Your task to perform on an android device: turn off translation in the chrome app Image 0: 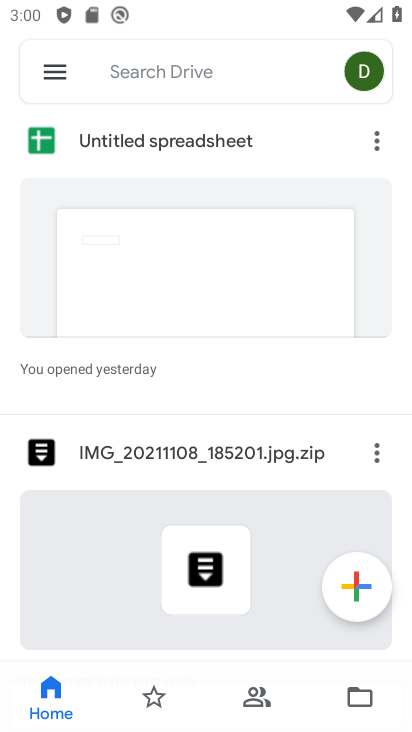
Step 0: press home button
Your task to perform on an android device: turn off translation in the chrome app Image 1: 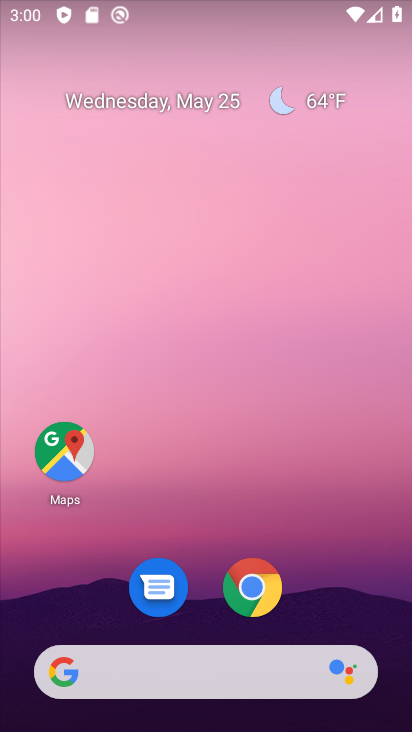
Step 1: click (260, 596)
Your task to perform on an android device: turn off translation in the chrome app Image 2: 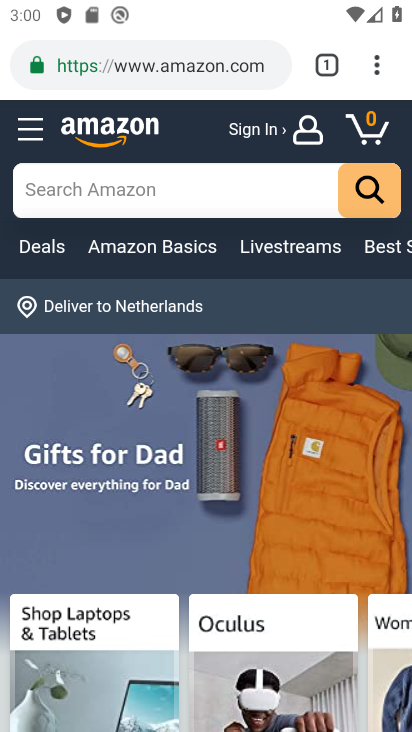
Step 2: click (383, 68)
Your task to perform on an android device: turn off translation in the chrome app Image 3: 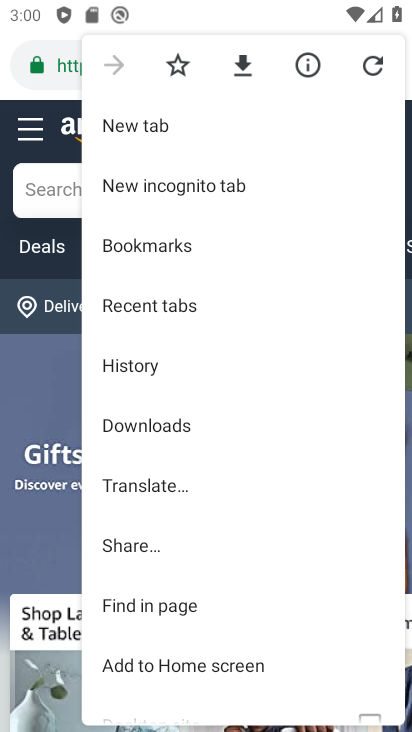
Step 3: drag from (176, 699) to (163, 170)
Your task to perform on an android device: turn off translation in the chrome app Image 4: 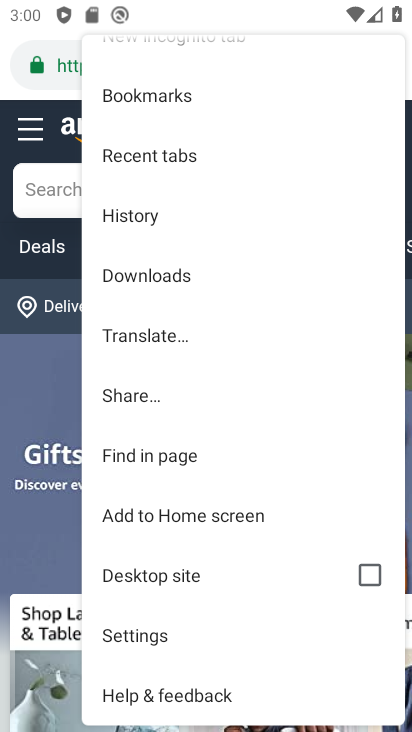
Step 4: click (137, 638)
Your task to perform on an android device: turn off translation in the chrome app Image 5: 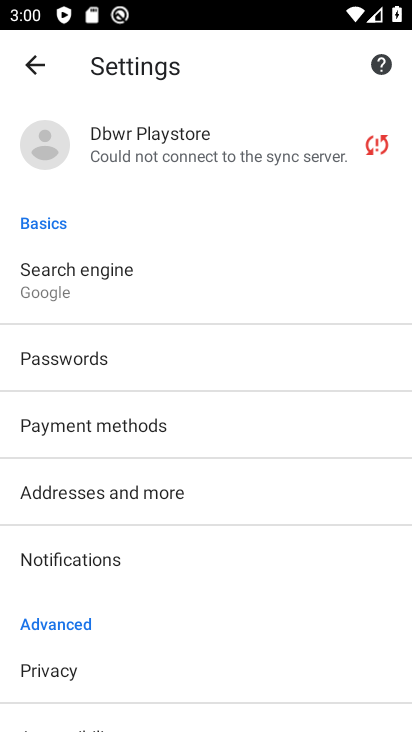
Step 5: drag from (107, 705) to (99, 310)
Your task to perform on an android device: turn off translation in the chrome app Image 6: 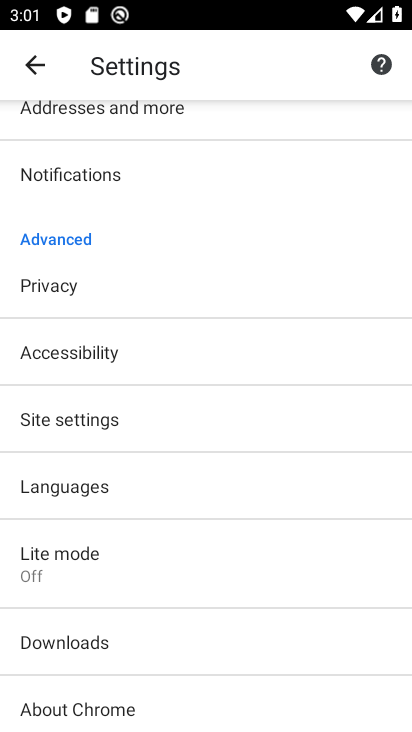
Step 6: click (108, 504)
Your task to perform on an android device: turn off translation in the chrome app Image 7: 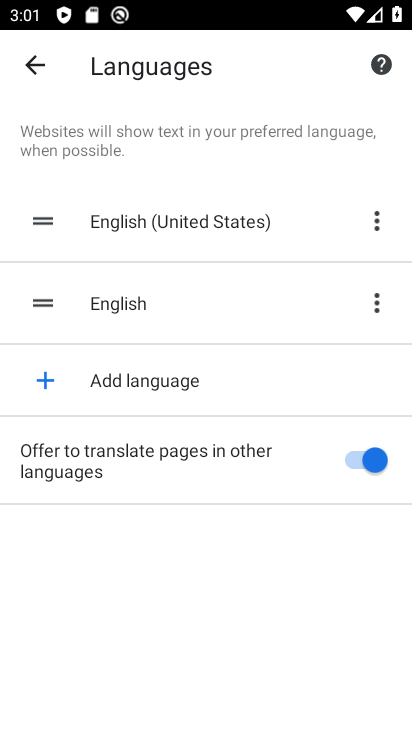
Step 7: click (358, 470)
Your task to perform on an android device: turn off translation in the chrome app Image 8: 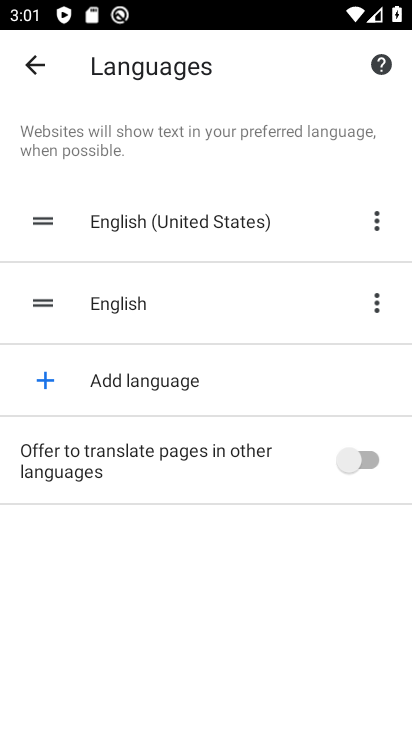
Step 8: task complete